Your task to perform on an android device: Turn on the flashlight Image 0: 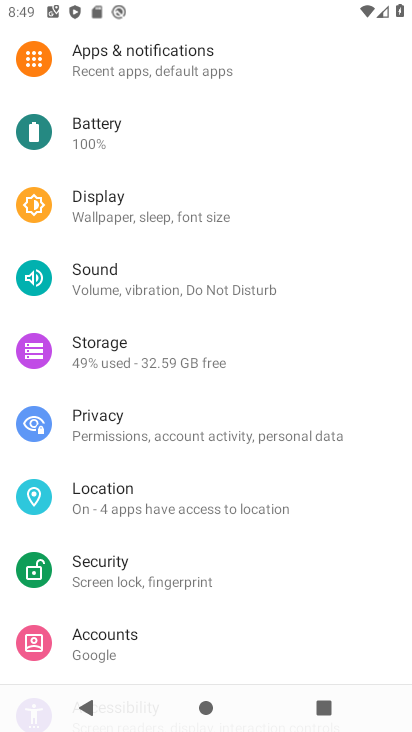
Step 0: task impossible